Your task to perform on an android device: open app "ZOOM Cloud Meetings" (install if not already installed) Image 0: 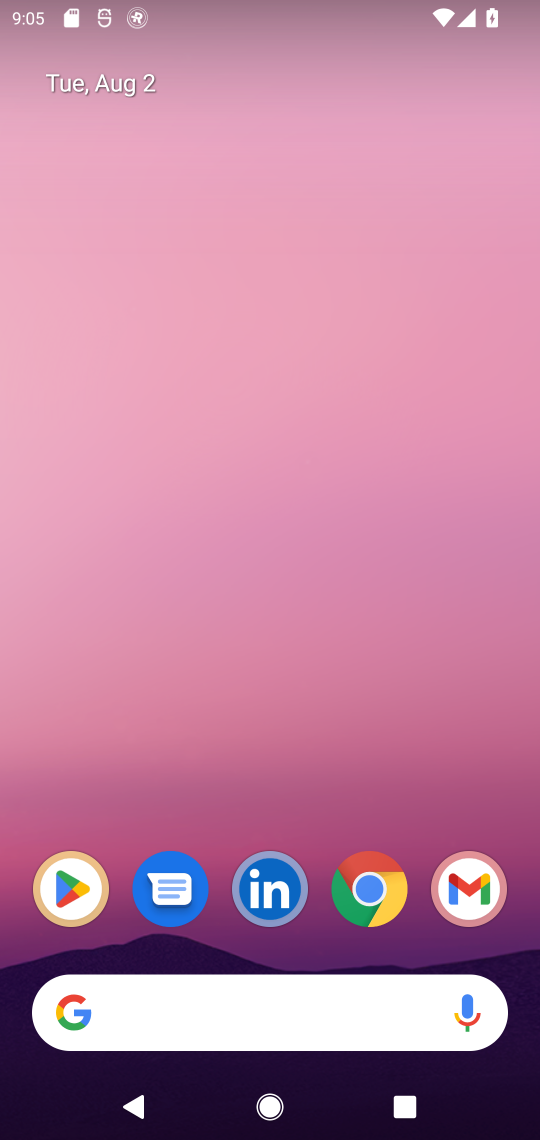
Step 0: press home button
Your task to perform on an android device: open app "ZOOM Cloud Meetings" (install if not already installed) Image 1: 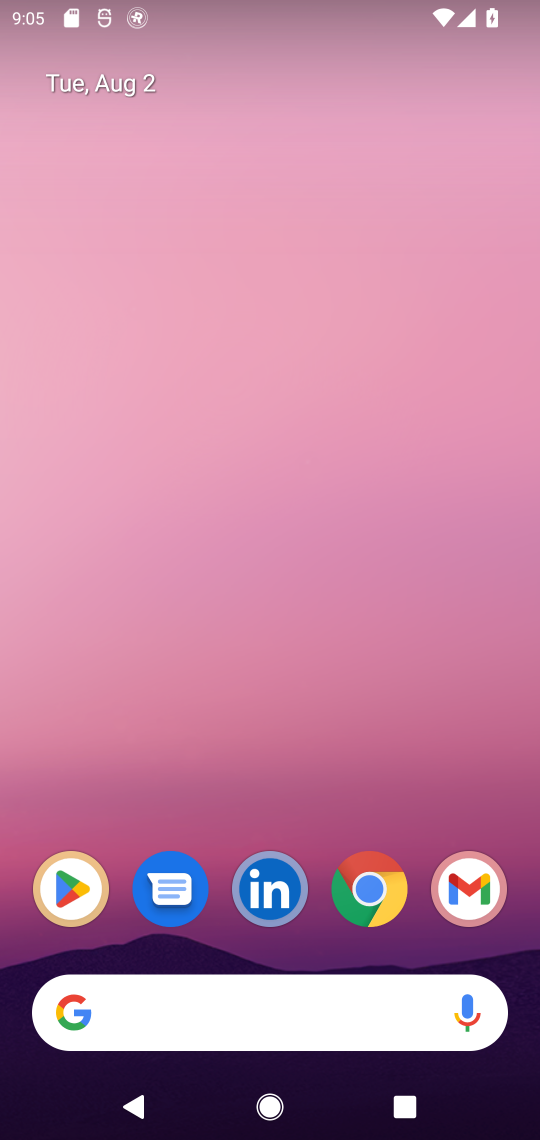
Step 1: click (77, 888)
Your task to perform on an android device: open app "ZOOM Cloud Meetings" (install if not already installed) Image 2: 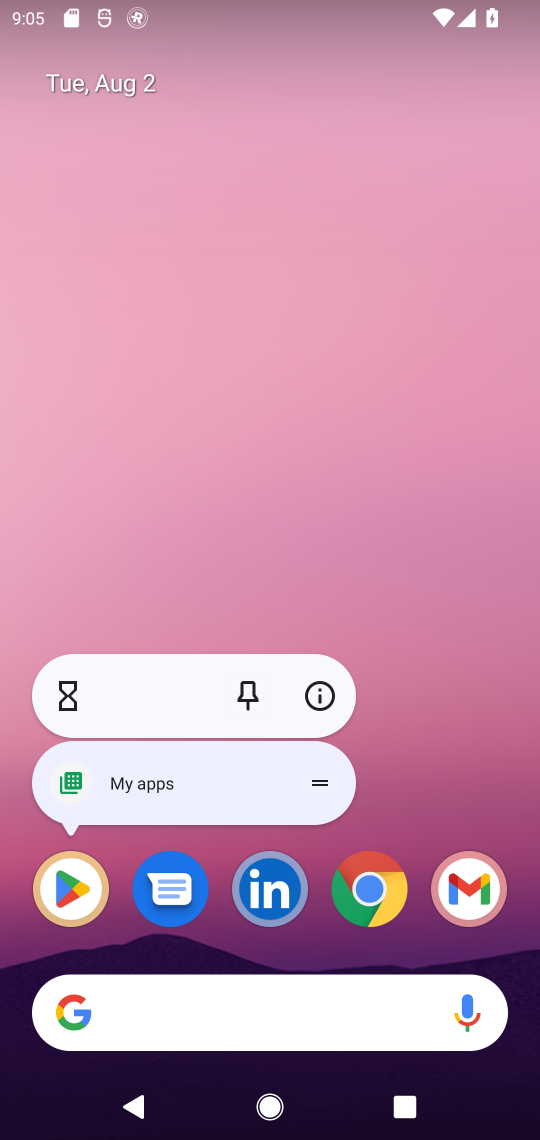
Step 2: click (60, 893)
Your task to perform on an android device: open app "ZOOM Cloud Meetings" (install if not already installed) Image 3: 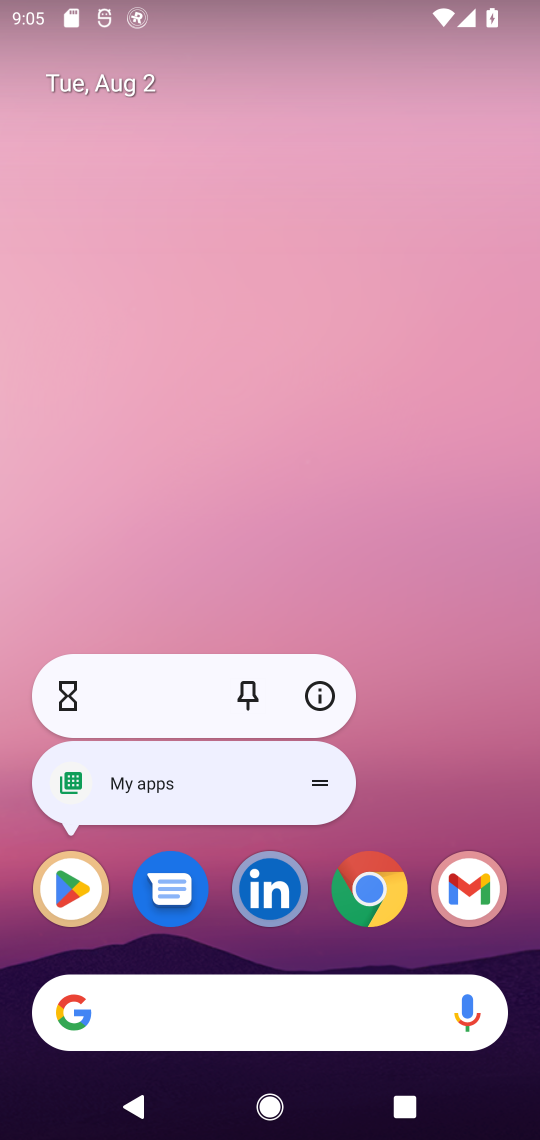
Step 3: click (59, 896)
Your task to perform on an android device: open app "ZOOM Cloud Meetings" (install if not already installed) Image 4: 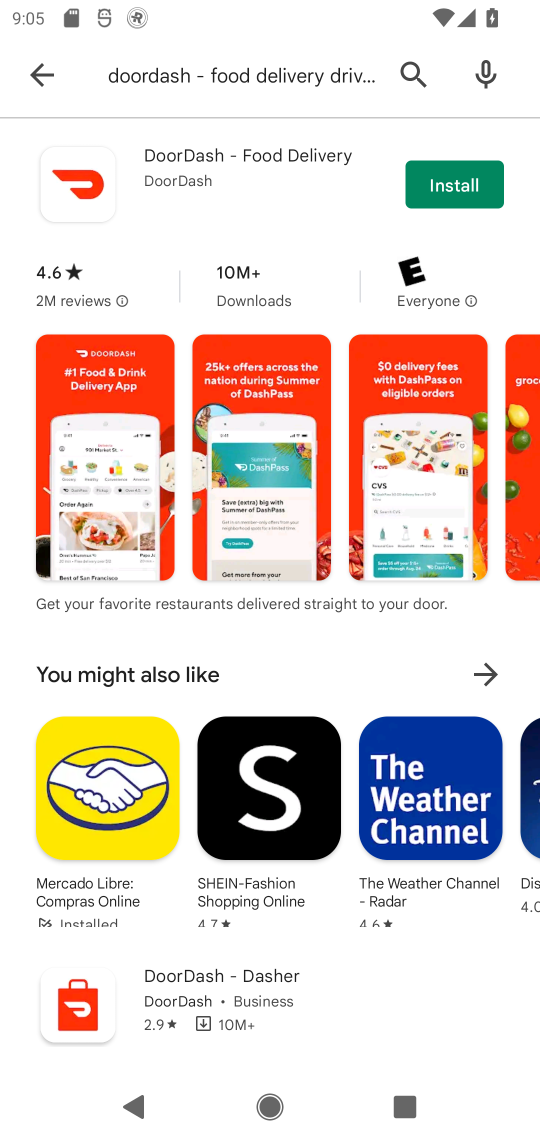
Step 4: click (414, 62)
Your task to perform on an android device: open app "ZOOM Cloud Meetings" (install if not already installed) Image 5: 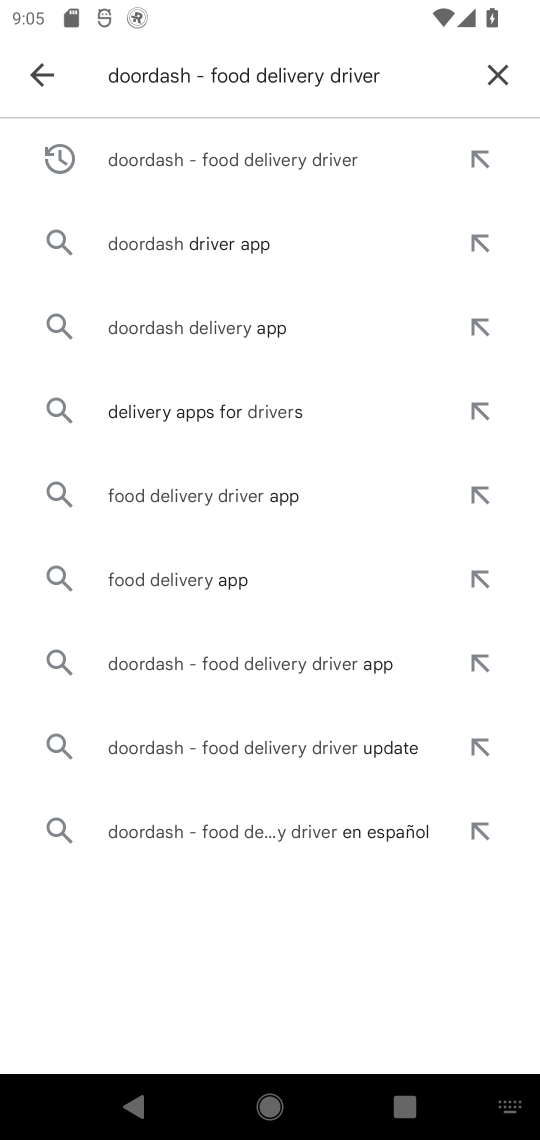
Step 5: click (501, 79)
Your task to perform on an android device: open app "ZOOM Cloud Meetings" (install if not already installed) Image 6: 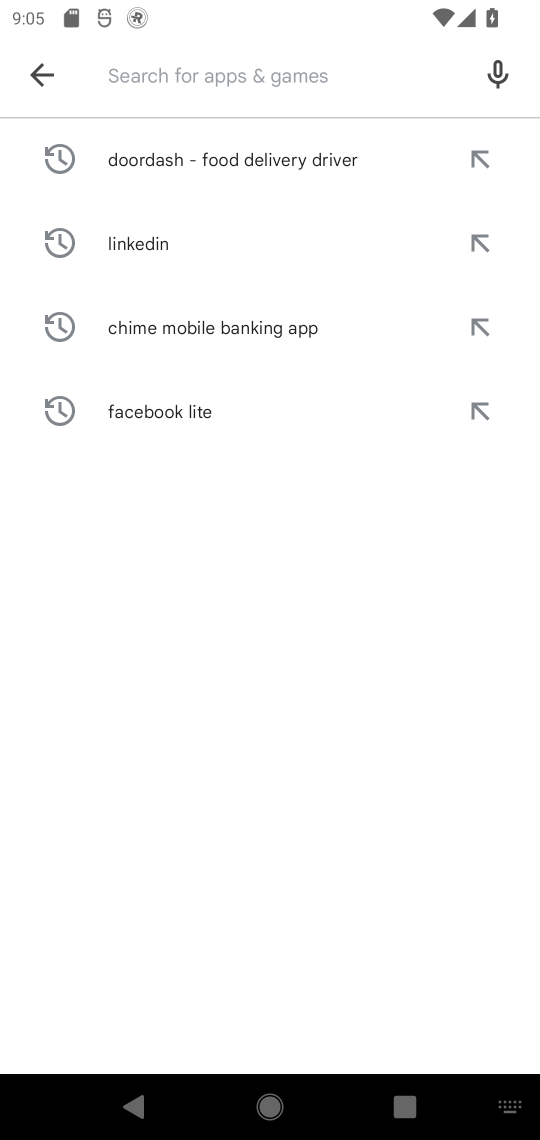
Step 6: type "ZOOM Cloud Meetings"
Your task to perform on an android device: open app "ZOOM Cloud Meetings" (install if not already installed) Image 7: 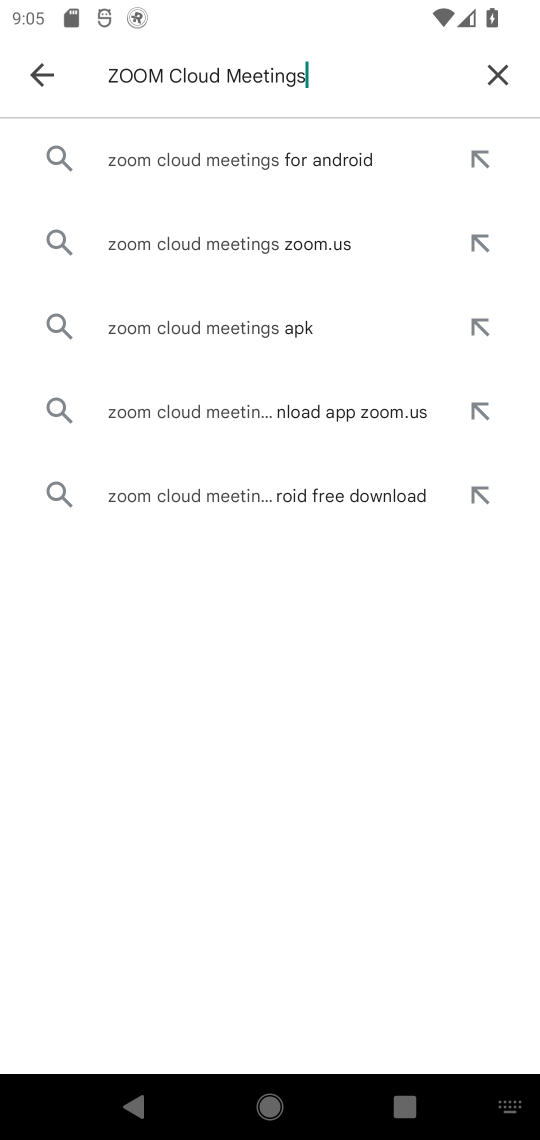
Step 7: click (284, 169)
Your task to perform on an android device: open app "ZOOM Cloud Meetings" (install if not already installed) Image 8: 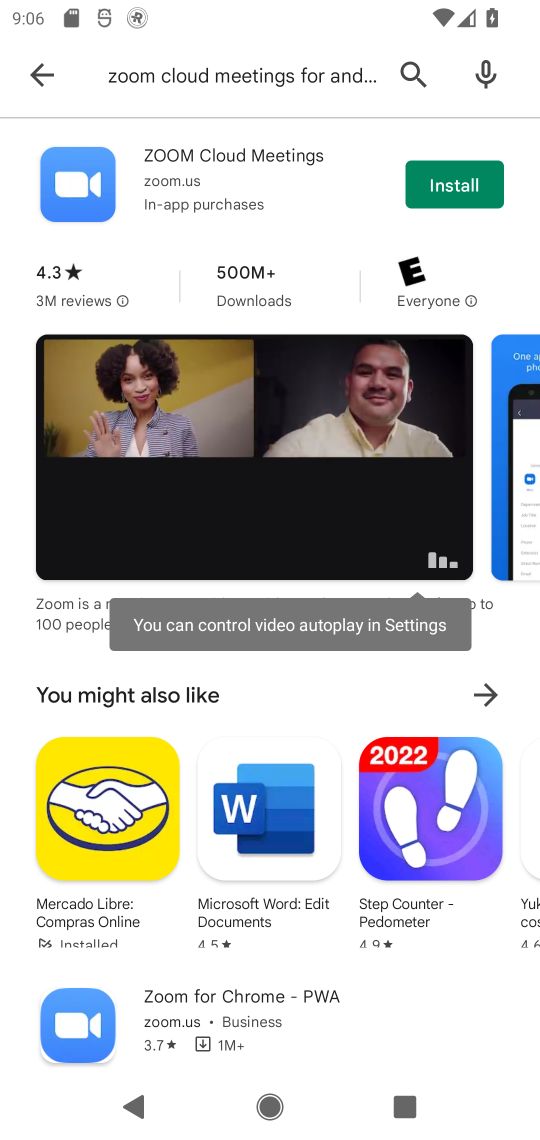
Step 8: click (445, 190)
Your task to perform on an android device: open app "ZOOM Cloud Meetings" (install if not already installed) Image 9: 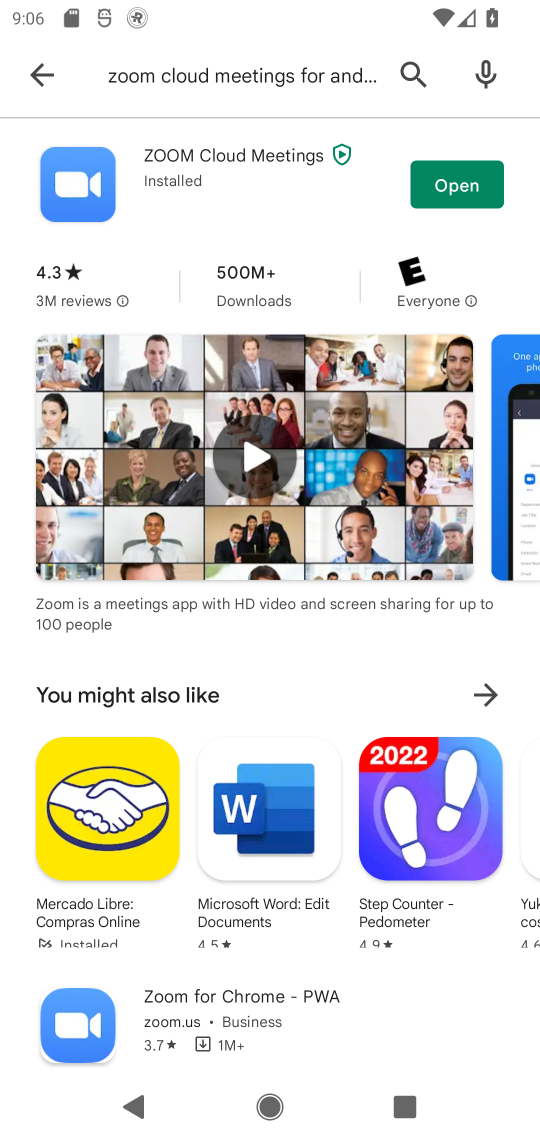
Step 9: click (456, 184)
Your task to perform on an android device: open app "ZOOM Cloud Meetings" (install if not already installed) Image 10: 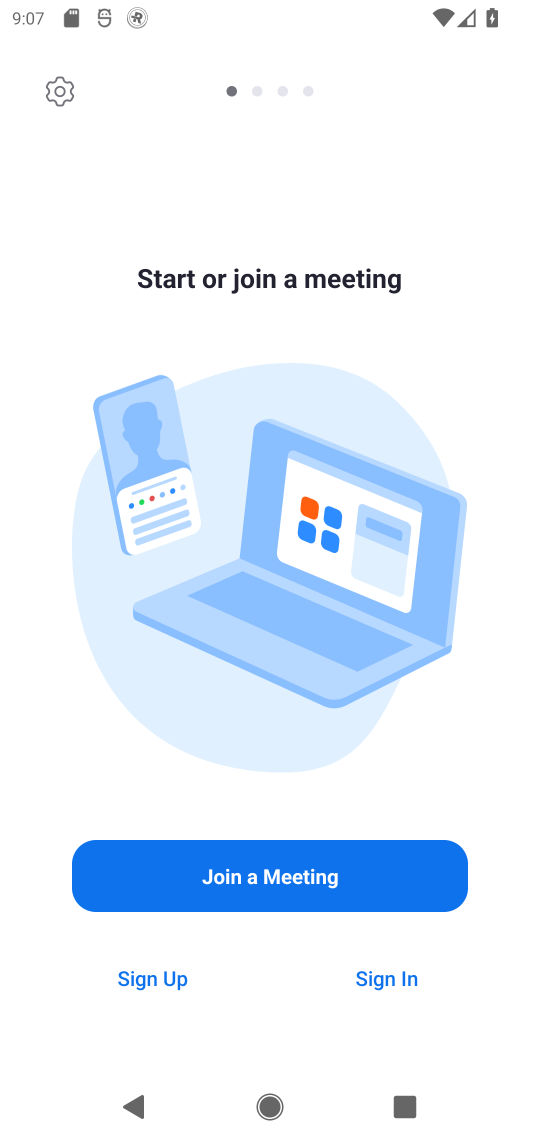
Step 10: task complete